Your task to perform on an android device: open a new tab in the chrome app Image 0: 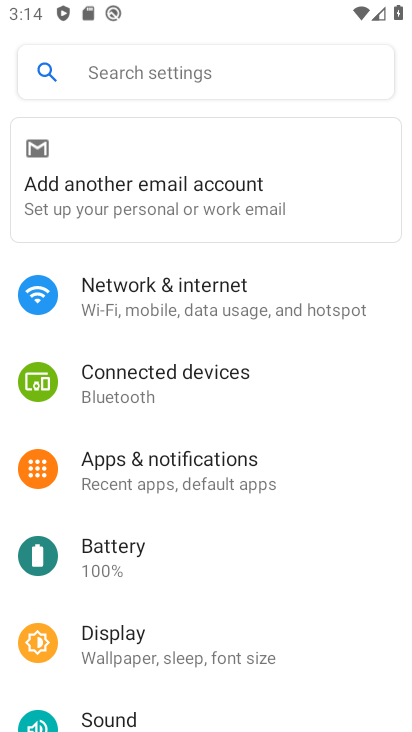
Step 0: press home button
Your task to perform on an android device: open a new tab in the chrome app Image 1: 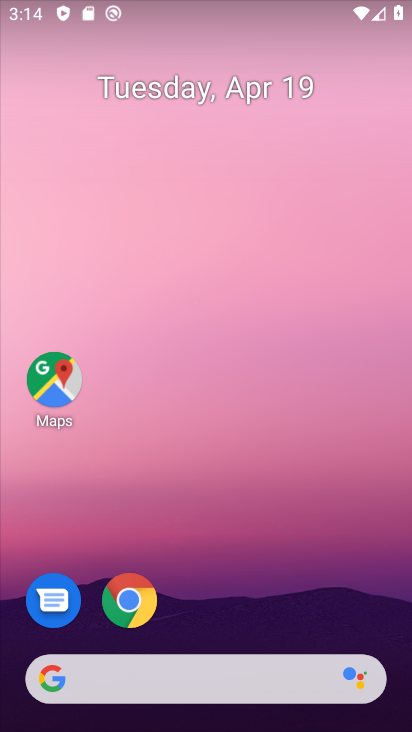
Step 1: click (140, 595)
Your task to perform on an android device: open a new tab in the chrome app Image 2: 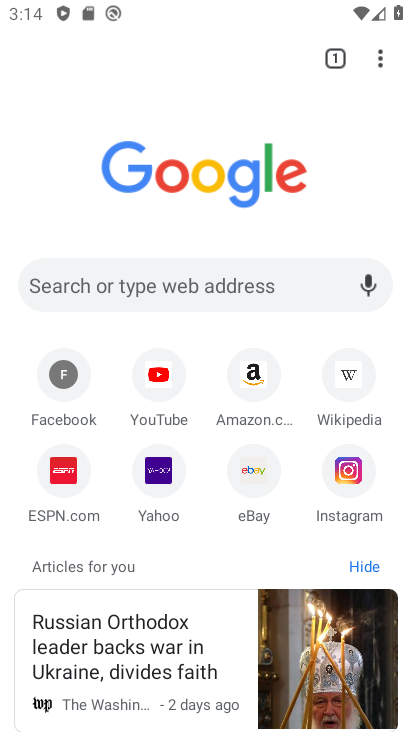
Step 2: click (376, 66)
Your task to perform on an android device: open a new tab in the chrome app Image 3: 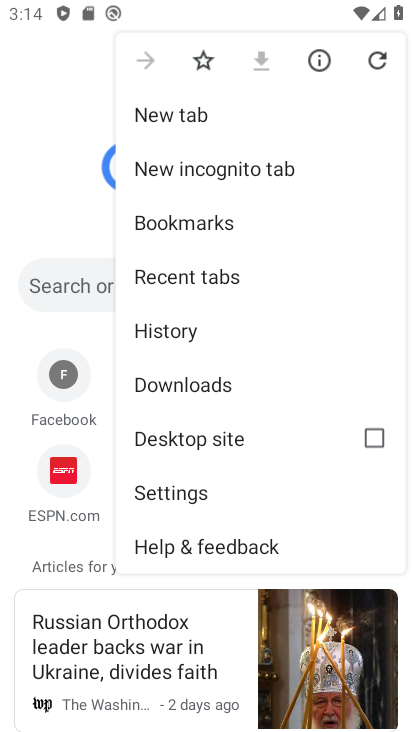
Step 3: click (220, 106)
Your task to perform on an android device: open a new tab in the chrome app Image 4: 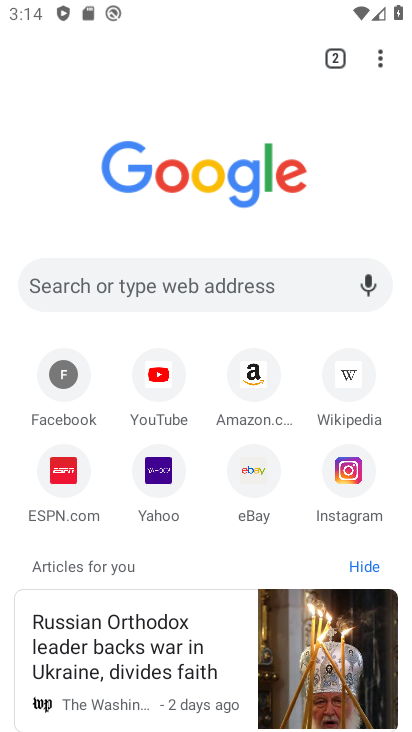
Step 4: task complete